Your task to perform on an android device: Go to sound settings Image 0: 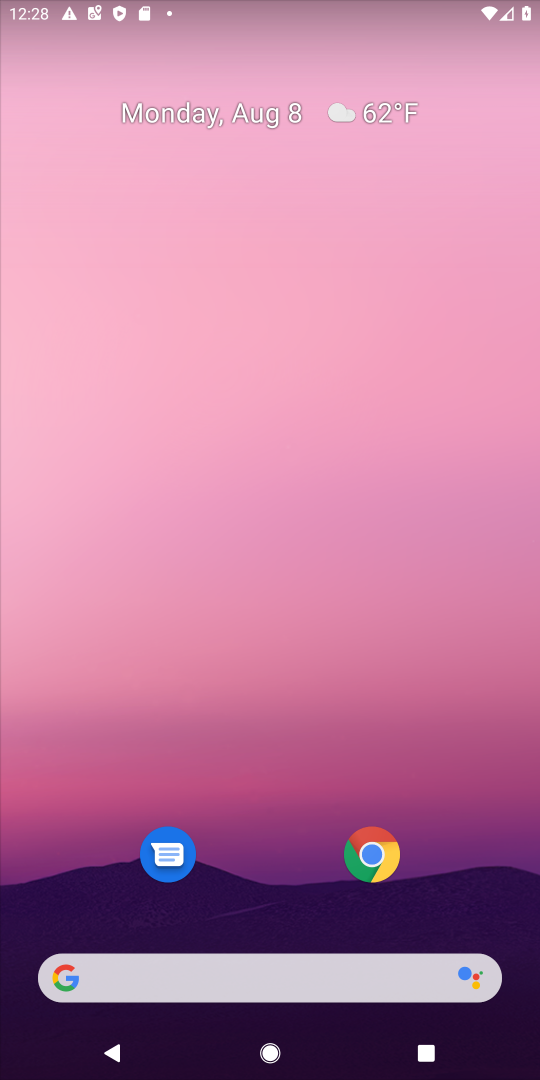
Step 0: press home button
Your task to perform on an android device: Go to sound settings Image 1: 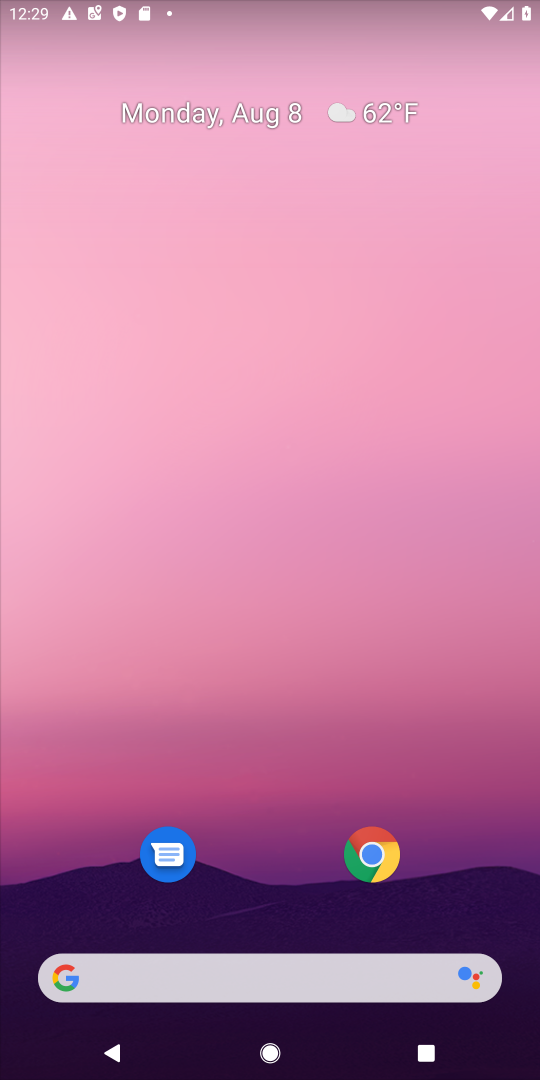
Step 1: drag from (282, 894) to (356, 175)
Your task to perform on an android device: Go to sound settings Image 2: 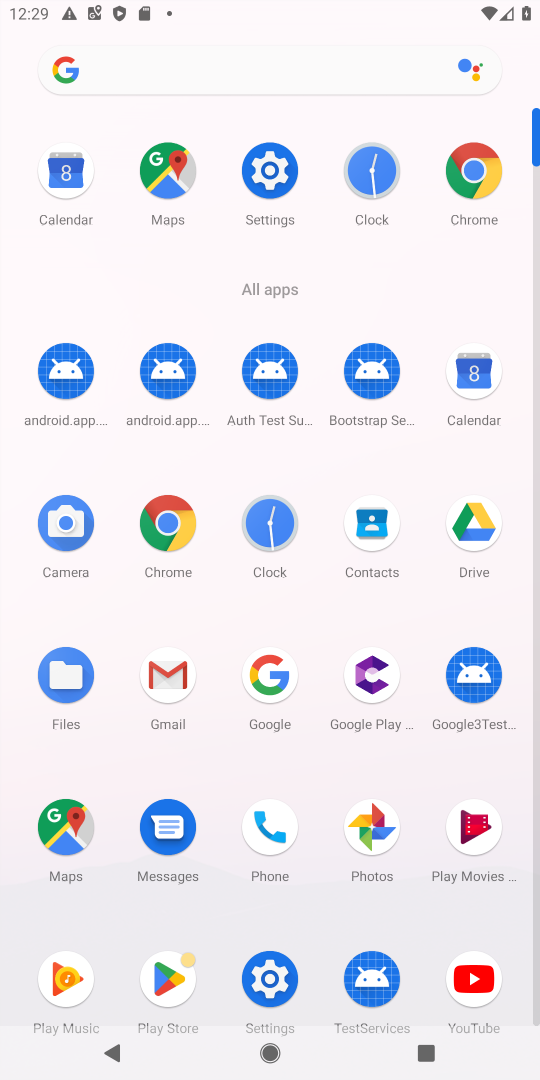
Step 2: click (272, 179)
Your task to perform on an android device: Go to sound settings Image 3: 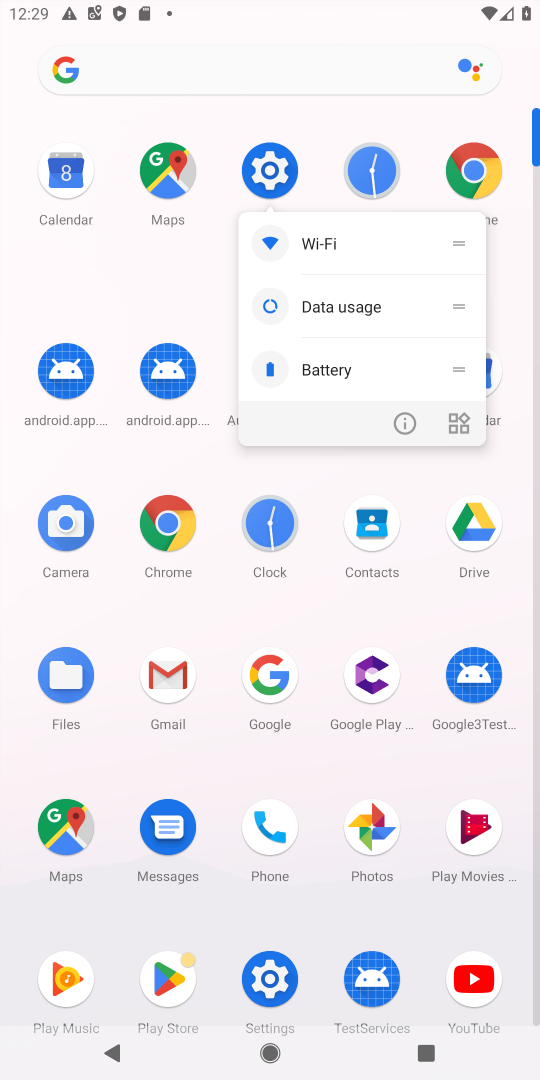
Step 3: click (272, 179)
Your task to perform on an android device: Go to sound settings Image 4: 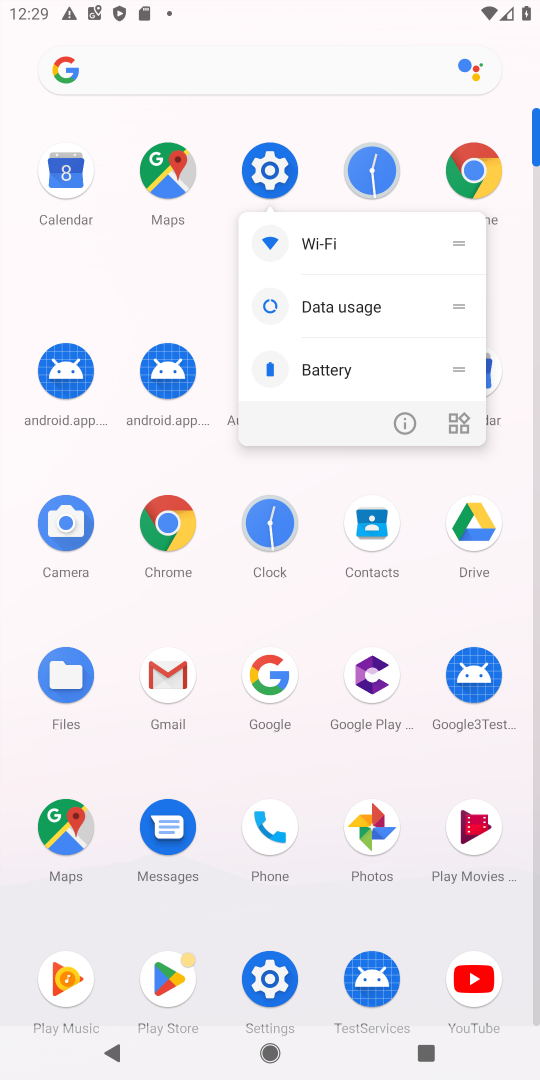
Step 4: click (272, 179)
Your task to perform on an android device: Go to sound settings Image 5: 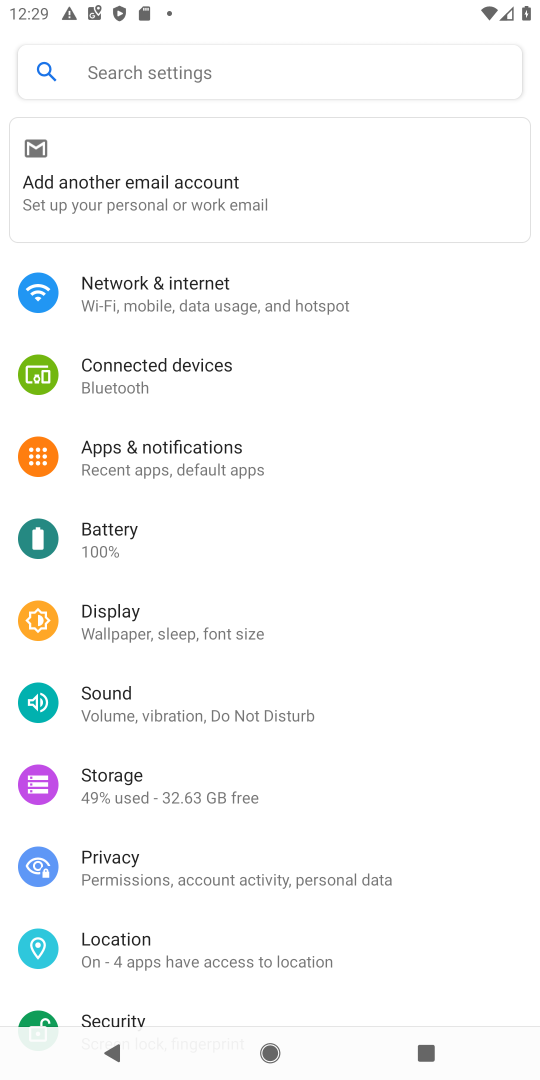
Step 5: click (106, 698)
Your task to perform on an android device: Go to sound settings Image 6: 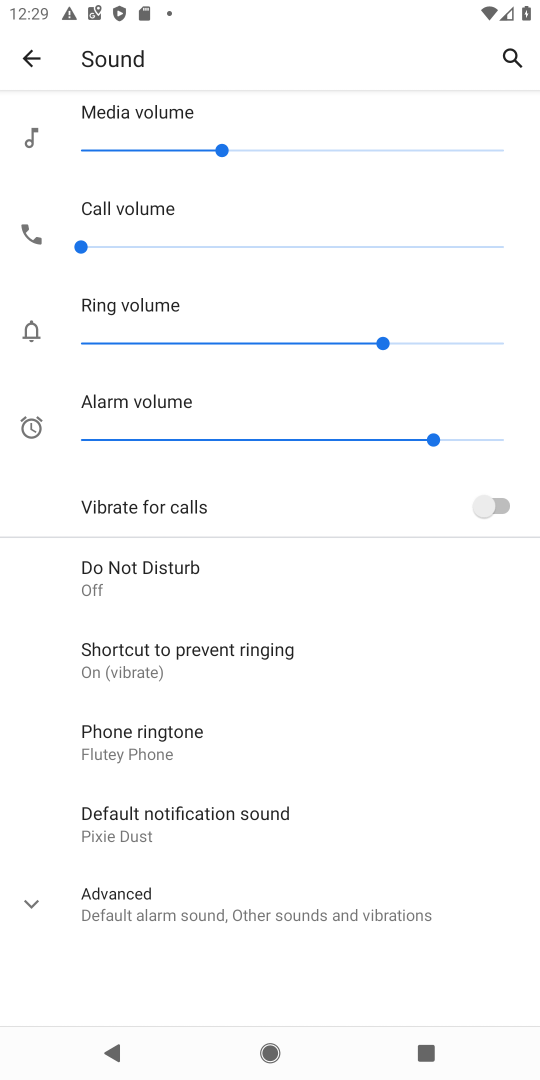
Step 6: task complete